Your task to perform on an android device: open chrome privacy settings Image 0: 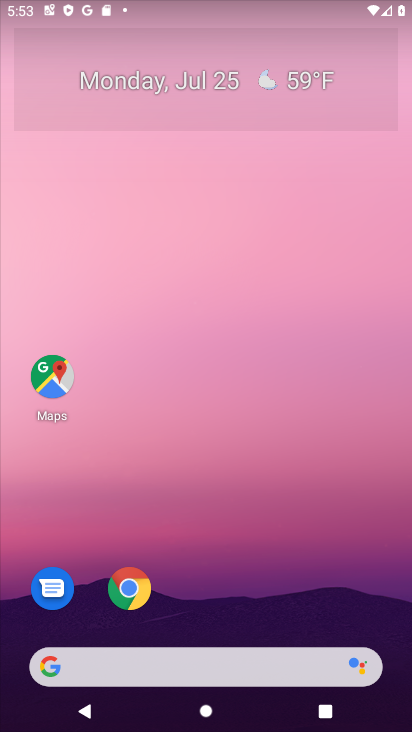
Step 0: click (136, 581)
Your task to perform on an android device: open chrome privacy settings Image 1: 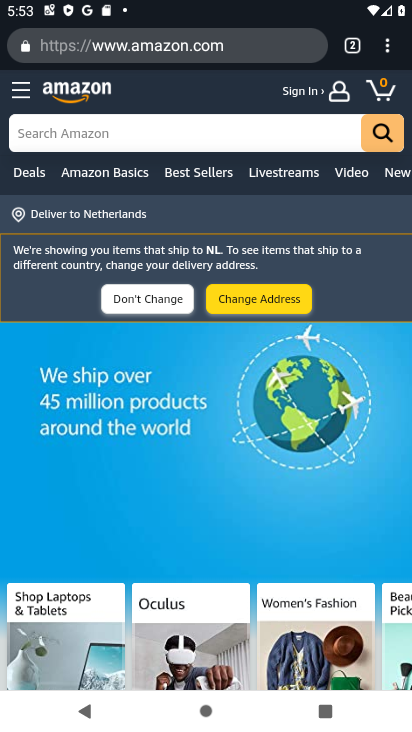
Step 1: click (396, 50)
Your task to perform on an android device: open chrome privacy settings Image 2: 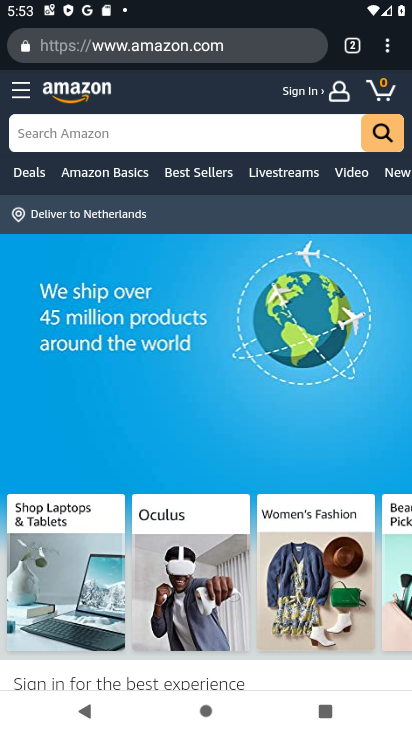
Step 2: click (394, 47)
Your task to perform on an android device: open chrome privacy settings Image 3: 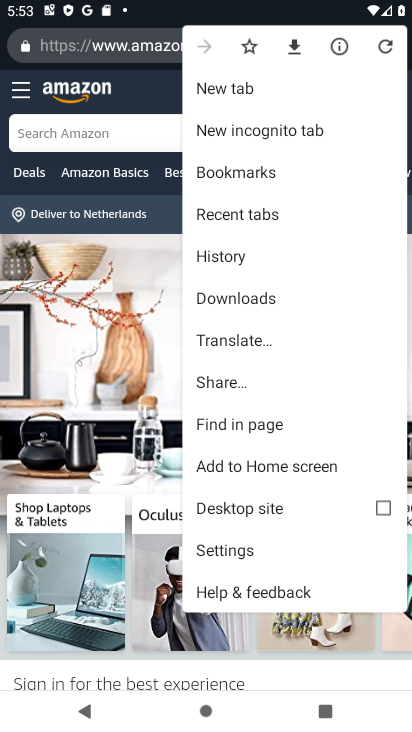
Step 3: click (227, 549)
Your task to perform on an android device: open chrome privacy settings Image 4: 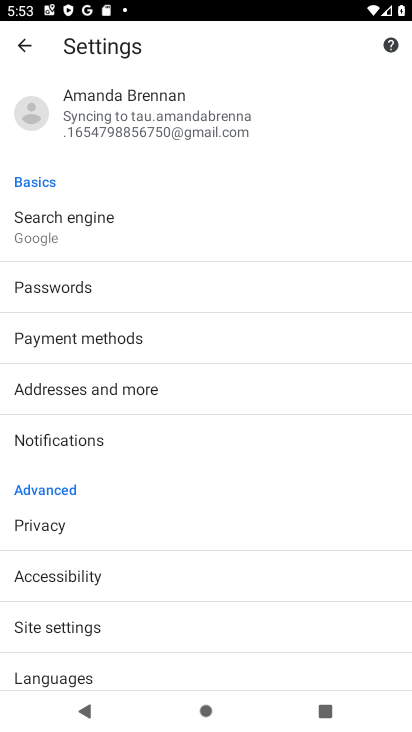
Step 4: drag from (276, 438) to (282, 119)
Your task to perform on an android device: open chrome privacy settings Image 5: 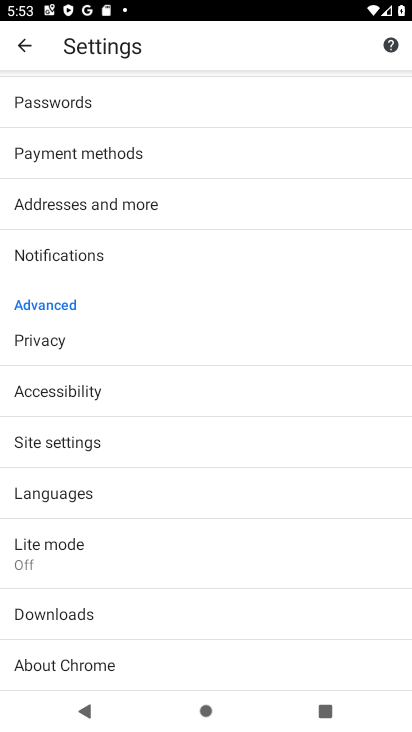
Step 5: click (127, 347)
Your task to perform on an android device: open chrome privacy settings Image 6: 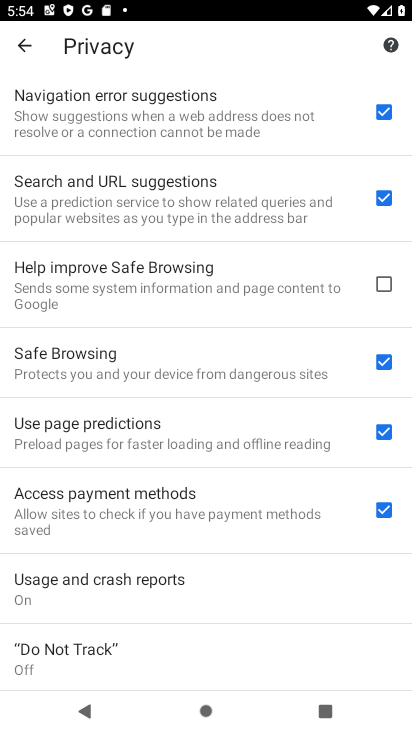
Step 6: task complete